Your task to perform on an android device: Set the phone to "Do not disturb". Image 0: 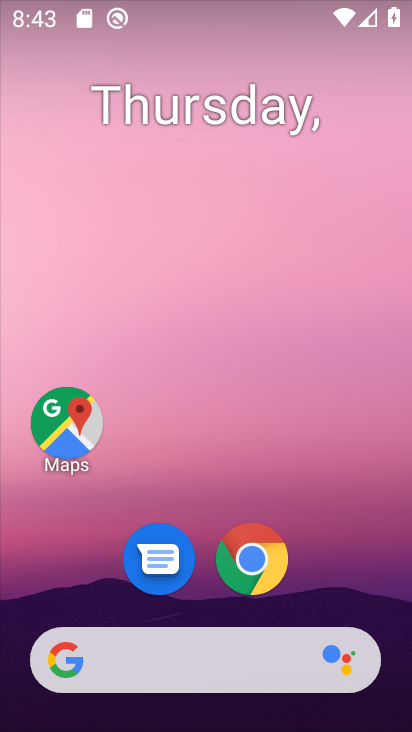
Step 0: drag from (88, 633) to (258, 9)
Your task to perform on an android device: Set the phone to "Do not disturb". Image 1: 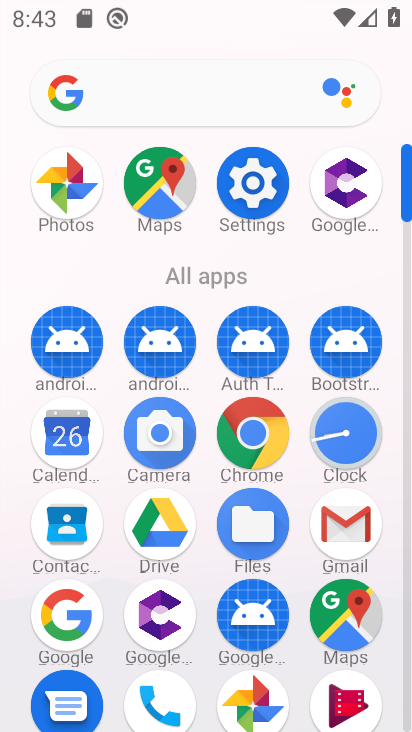
Step 1: drag from (181, 583) to (245, 283)
Your task to perform on an android device: Set the phone to "Do not disturb". Image 2: 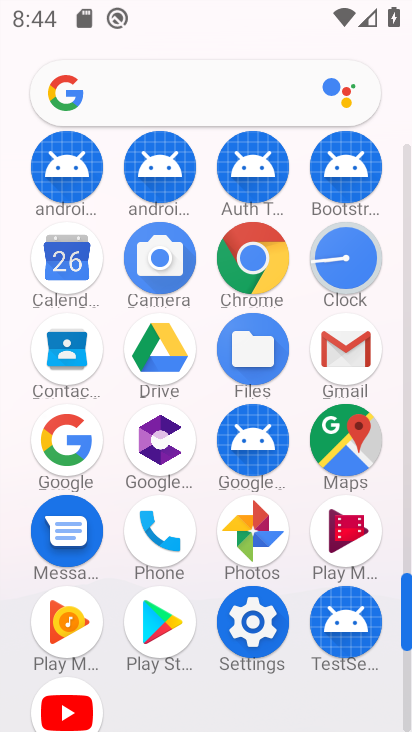
Step 2: click (287, 652)
Your task to perform on an android device: Set the phone to "Do not disturb". Image 3: 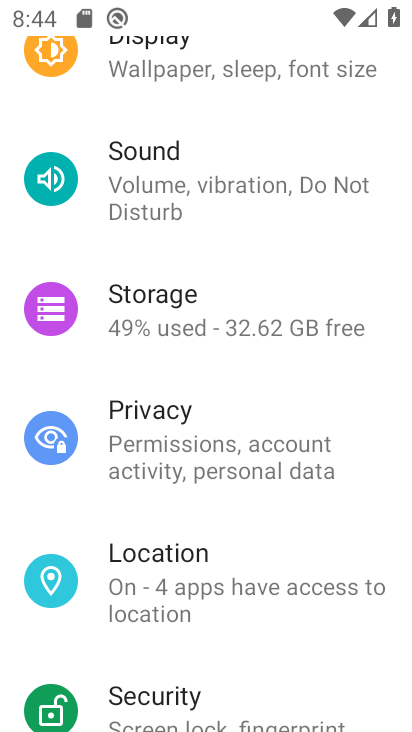
Step 3: drag from (281, 223) to (225, 595)
Your task to perform on an android device: Set the phone to "Do not disturb". Image 4: 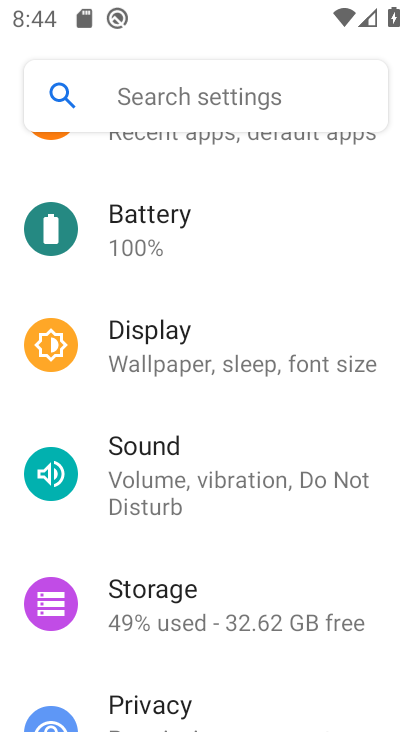
Step 4: drag from (282, 287) to (279, 657)
Your task to perform on an android device: Set the phone to "Do not disturb". Image 5: 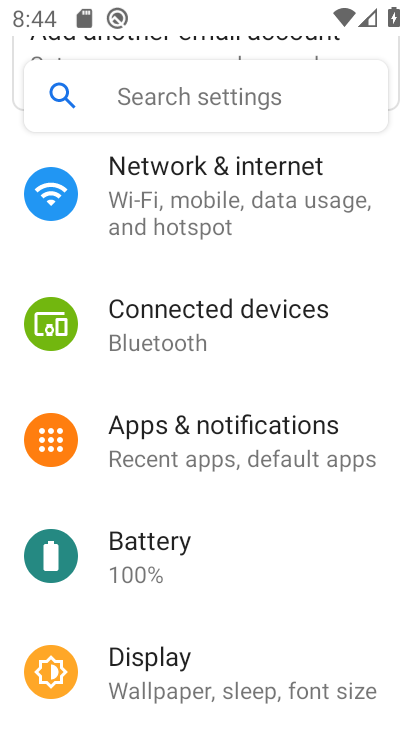
Step 5: click (221, 439)
Your task to perform on an android device: Set the phone to "Do not disturb". Image 6: 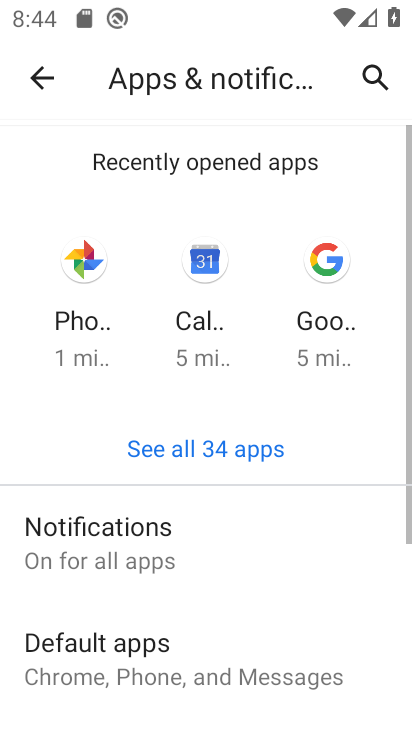
Step 6: drag from (253, 661) to (338, 276)
Your task to perform on an android device: Set the phone to "Do not disturb". Image 7: 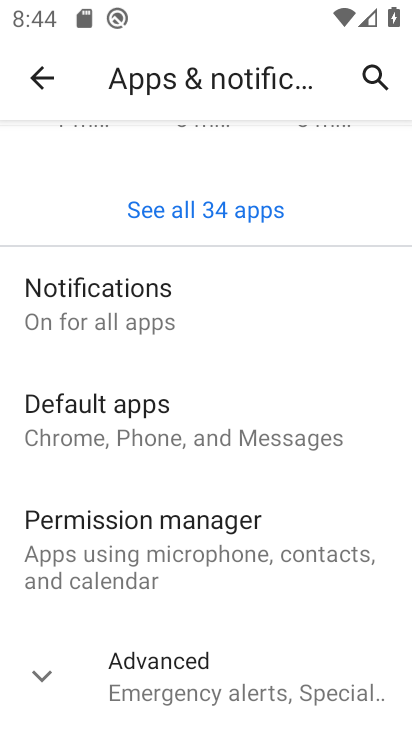
Step 7: click (232, 307)
Your task to perform on an android device: Set the phone to "Do not disturb". Image 8: 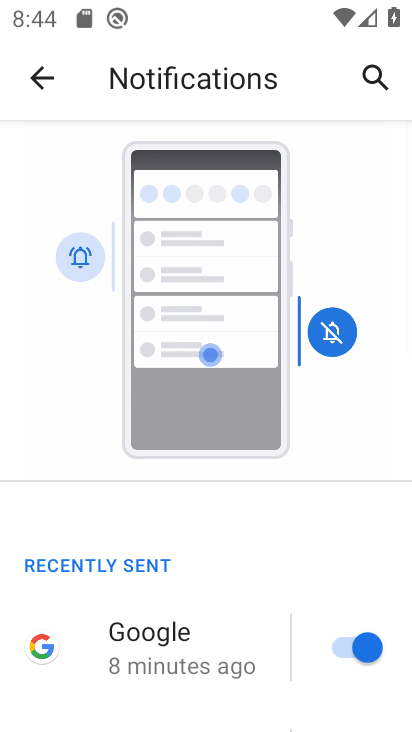
Step 8: drag from (190, 636) to (342, 61)
Your task to perform on an android device: Set the phone to "Do not disturb". Image 9: 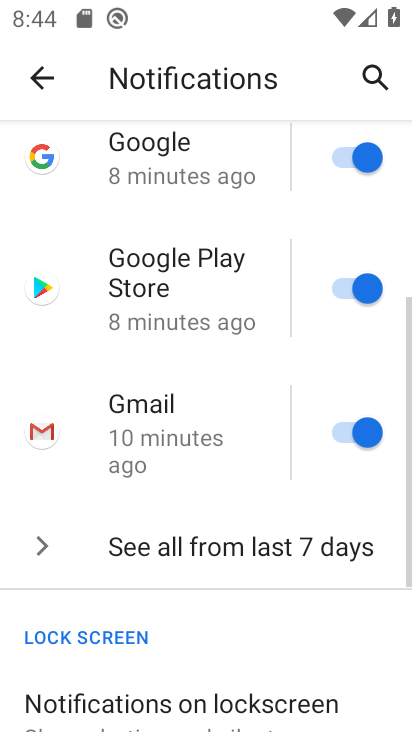
Step 9: drag from (173, 545) to (284, 103)
Your task to perform on an android device: Set the phone to "Do not disturb". Image 10: 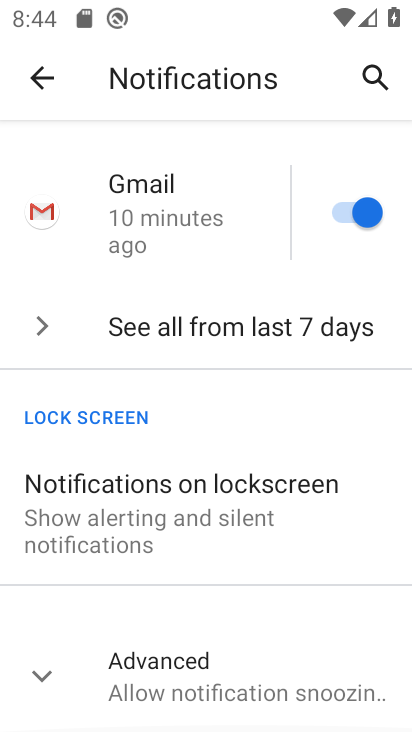
Step 10: click (164, 686)
Your task to perform on an android device: Set the phone to "Do not disturb". Image 11: 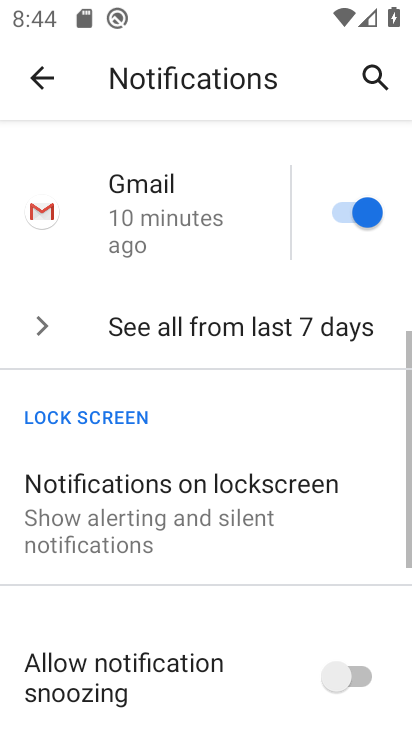
Step 11: drag from (164, 684) to (300, 145)
Your task to perform on an android device: Set the phone to "Do not disturb". Image 12: 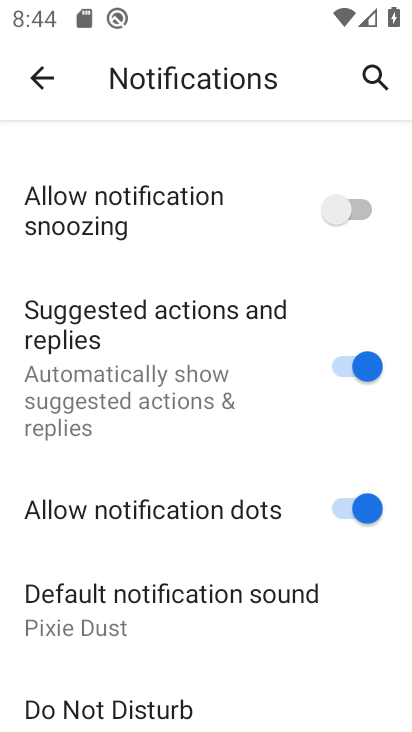
Step 12: drag from (139, 521) to (250, 96)
Your task to perform on an android device: Set the phone to "Do not disturb". Image 13: 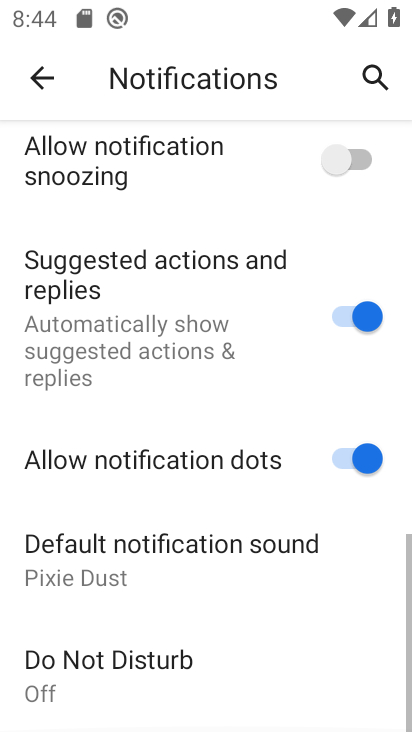
Step 13: click (141, 699)
Your task to perform on an android device: Set the phone to "Do not disturb". Image 14: 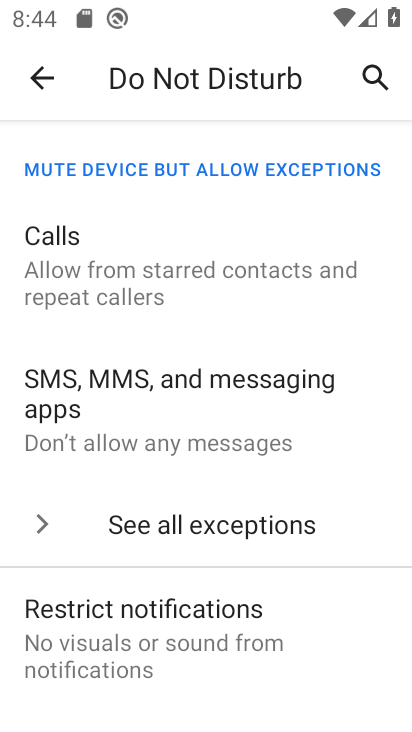
Step 14: drag from (226, 679) to (351, 57)
Your task to perform on an android device: Set the phone to "Do not disturb". Image 15: 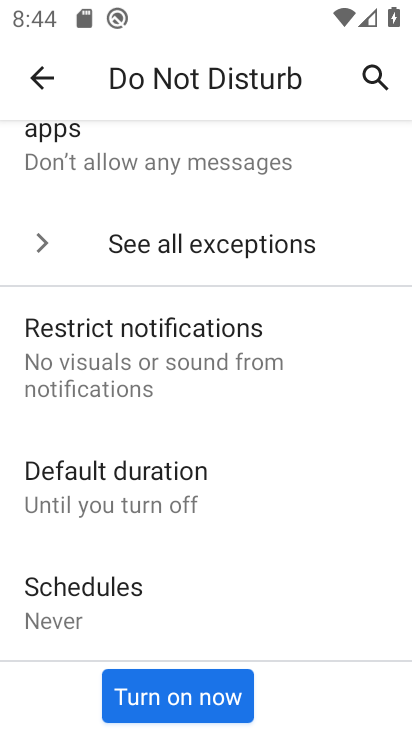
Step 15: click (197, 704)
Your task to perform on an android device: Set the phone to "Do not disturb". Image 16: 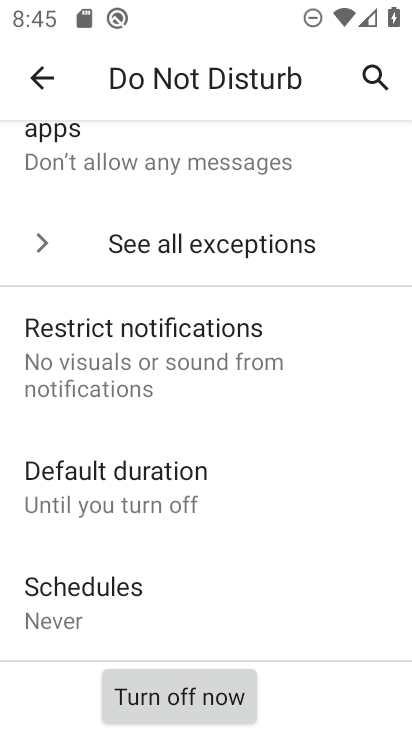
Step 16: task complete